Your task to perform on an android device: See recent photos Image 0: 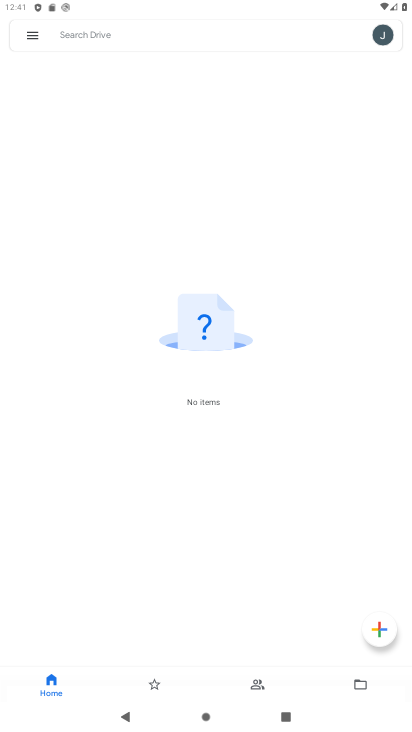
Step 0: press home button
Your task to perform on an android device: See recent photos Image 1: 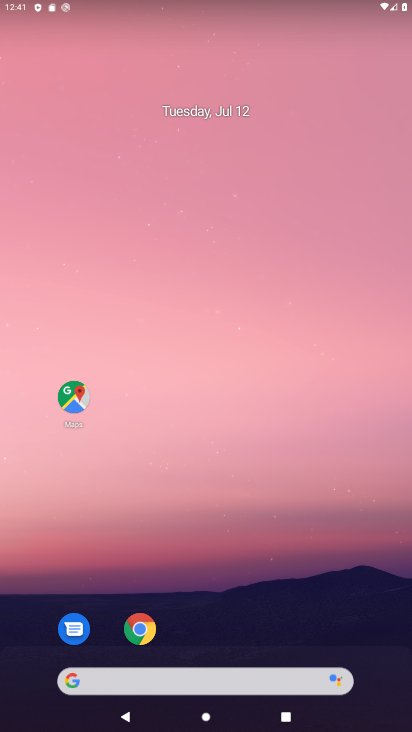
Step 1: drag from (230, 634) to (257, 111)
Your task to perform on an android device: See recent photos Image 2: 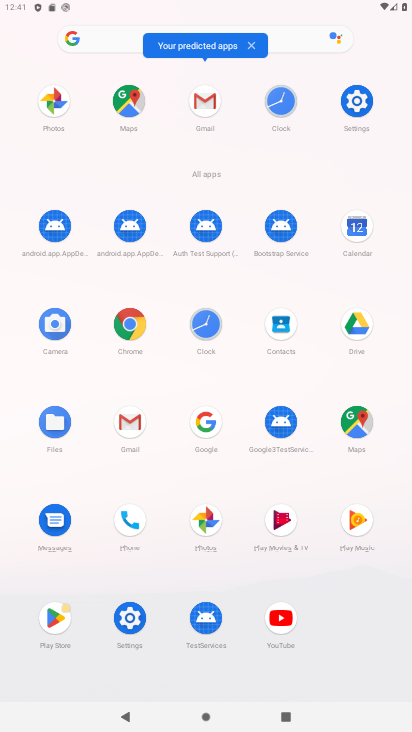
Step 2: click (205, 512)
Your task to perform on an android device: See recent photos Image 3: 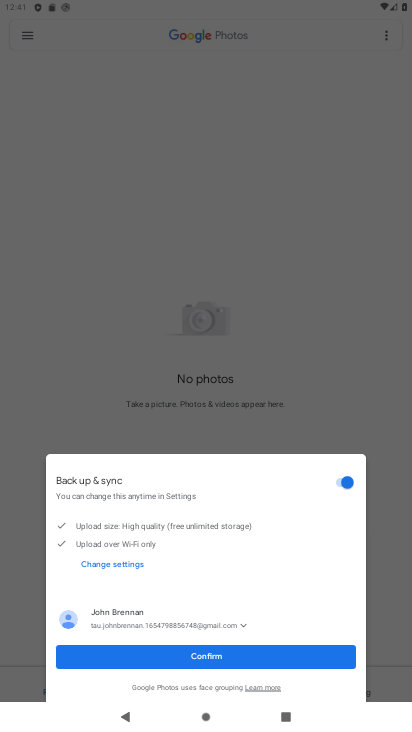
Step 3: click (206, 652)
Your task to perform on an android device: See recent photos Image 4: 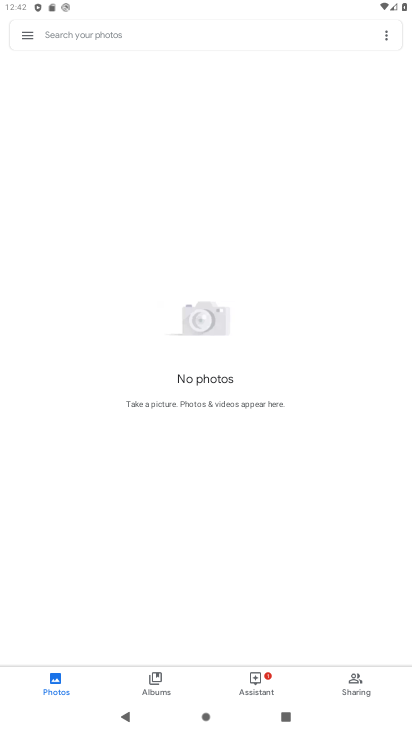
Step 4: task complete